Your task to perform on an android device: turn on location history Image 0: 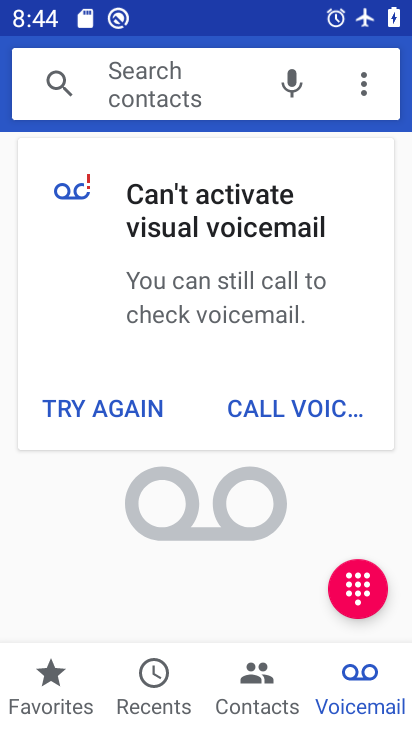
Step 0: press home button
Your task to perform on an android device: turn on location history Image 1: 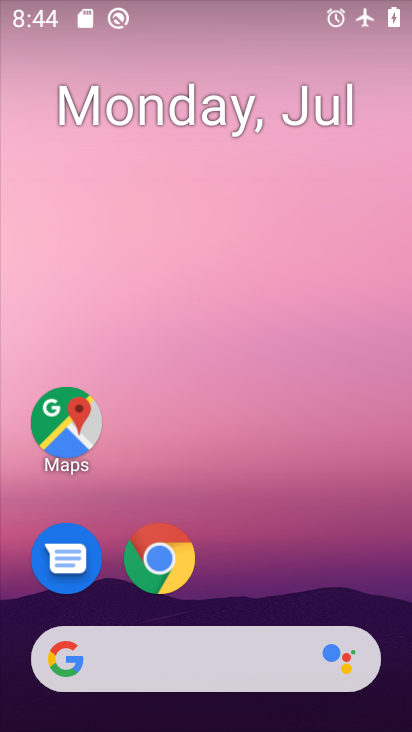
Step 1: drag from (317, 559) to (361, 157)
Your task to perform on an android device: turn on location history Image 2: 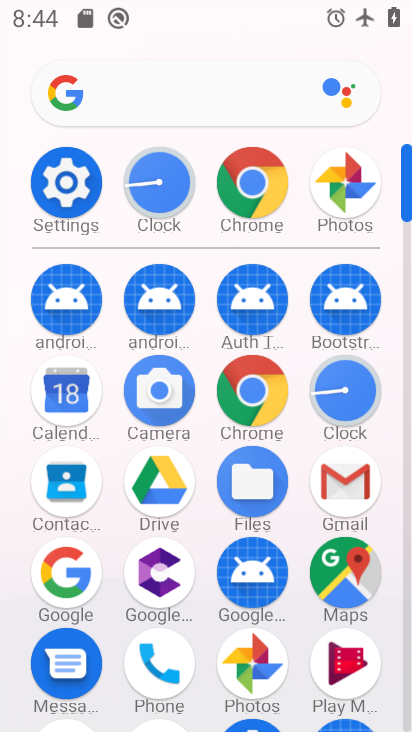
Step 2: click (70, 203)
Your task to perform on an android device: turn on location history Image 3: 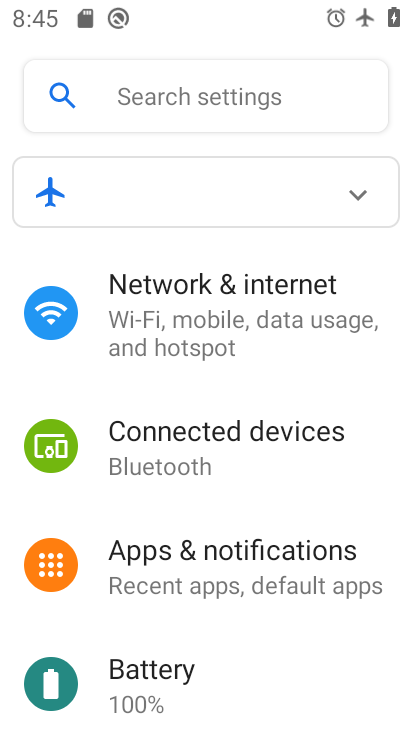
Step 3: drag from (362, 514) to (377, 418)
Your task to perform on an android device: turn on location history Image 4: 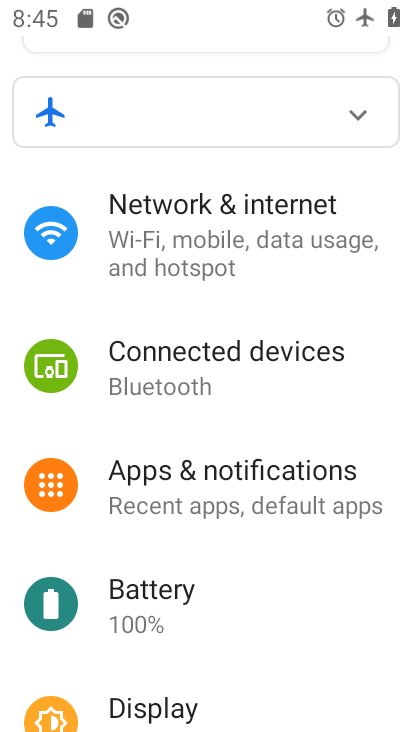
Step 4: drag from (351, 565) to (353, 470)
Your task to perform on an android device: turn on location history Image 5: 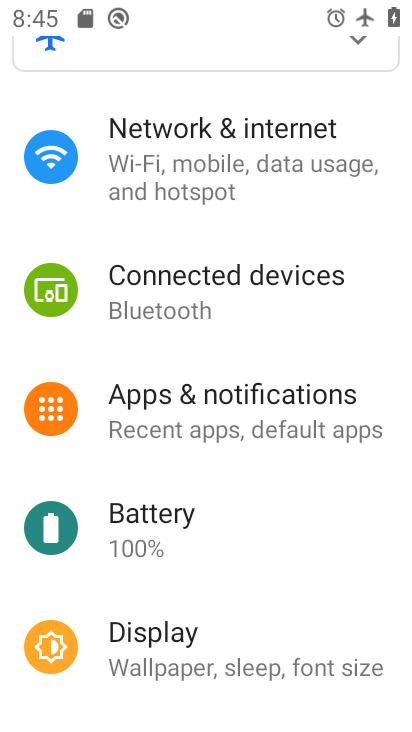
Step 5: drag from (331, 560) to (335, 484)
Your task to perform on an android device: turn on location history Image 6: 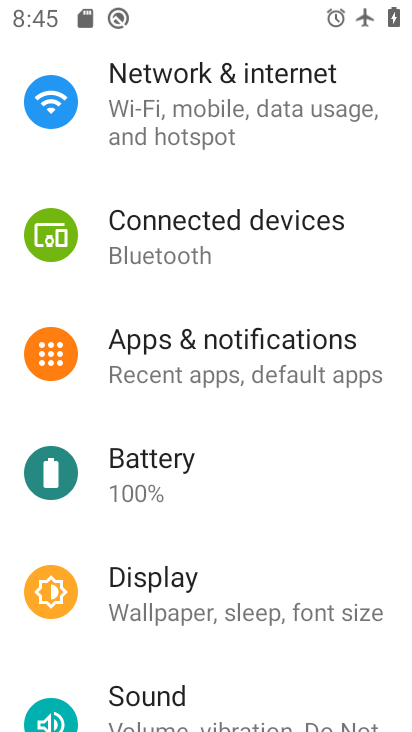
Step 6: drag from (327, 641) to (329, 535)
Your task to perform on an android device: turn on location history Image 7: 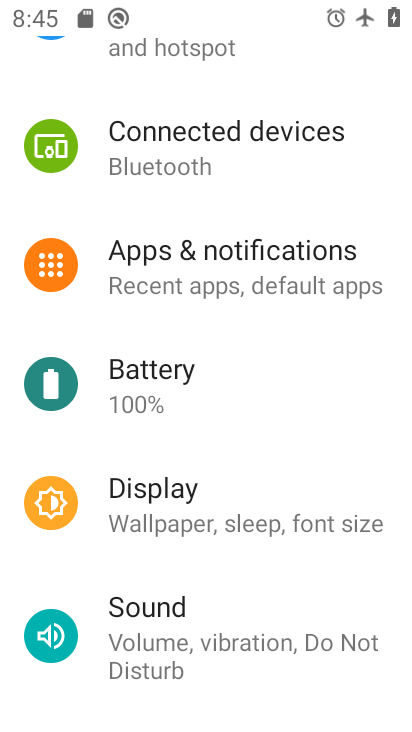
Step 7: drag from (324, 666) to (332, 554)
Your task to perform on an android device: turn on location history Image 8: 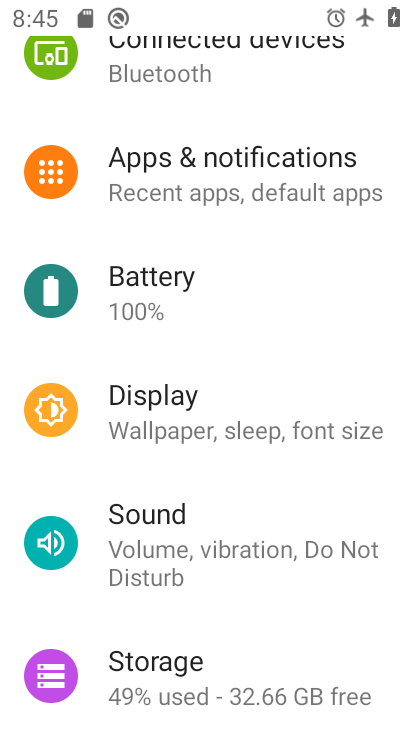
Step 8: drag from (329, 623) to (321, 509)
Your task to perform on an android device: turn on location history Image 9: 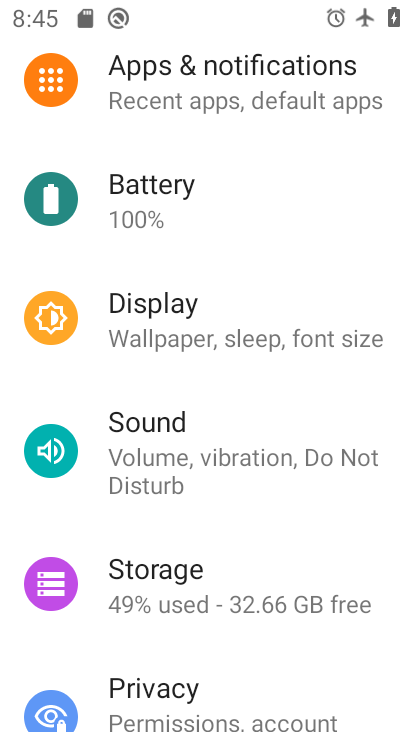
Step 9: drag from (317, 647) to (327, 554)
Your task to perform on an android device: turn on location history Image 10: 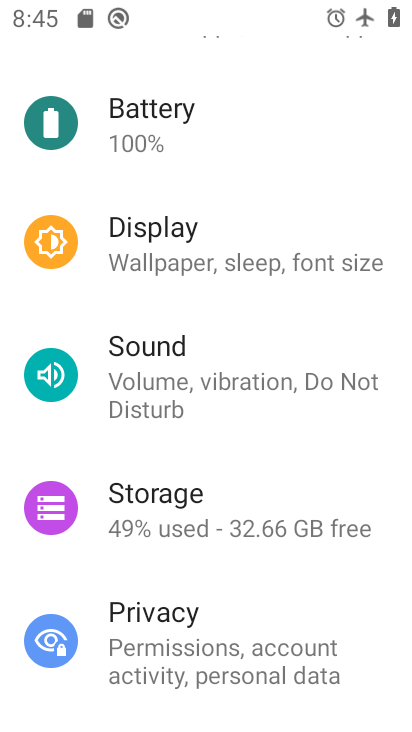
Step 10: drag from (341, 684) to (348, 566)
Your task to perform on an android device: turn on location history Image 11: 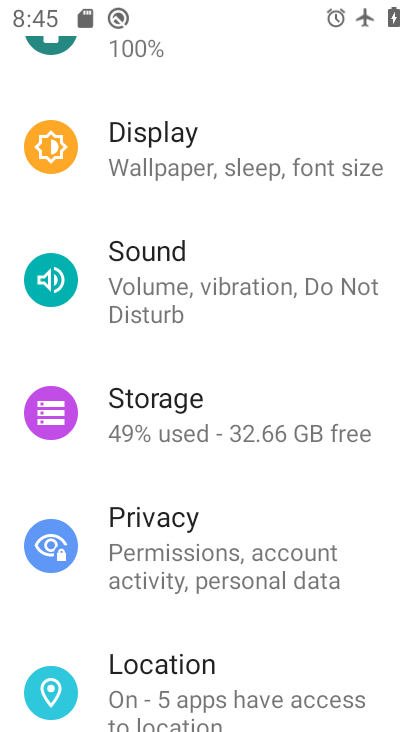
Step 11: drag from (341, 638) to (337, 527)
Your task to perform on an android device: turn on location history Image 12: 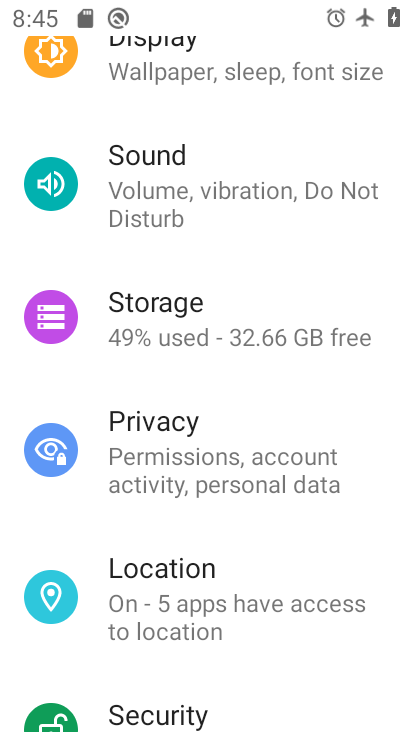
Step 12: click (314, 589)
Your task to perform on an android device: turn on location history Image 13: 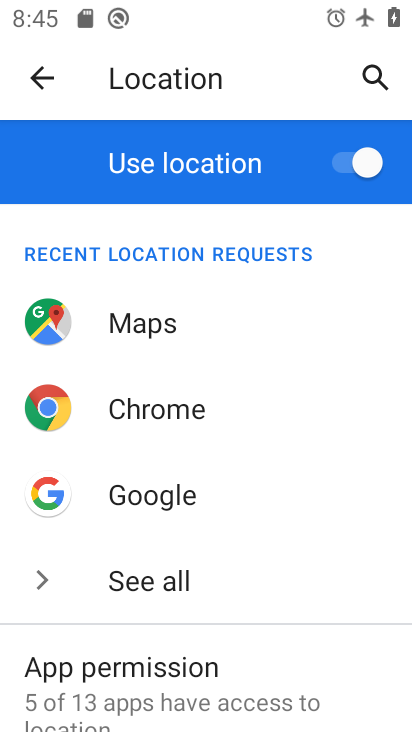
Step 13: drag from (309, 615) to (314, 472)
Your task to perform on an android device: turn on location history Image 14: 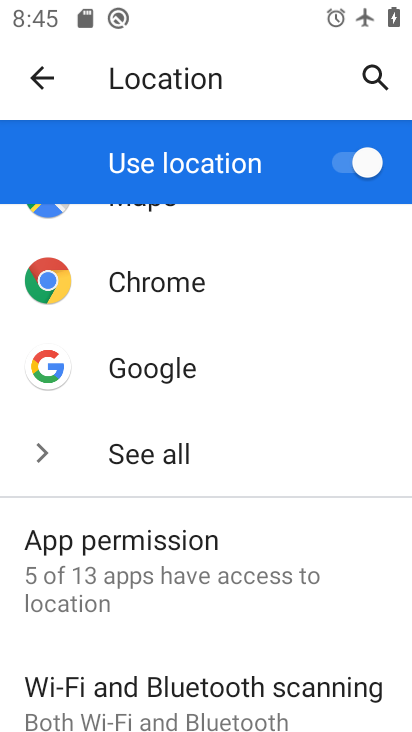
Step 14: drag from (305, 551) to (316, 399)
Your task to perform on an android device: turn on location history Image 15: 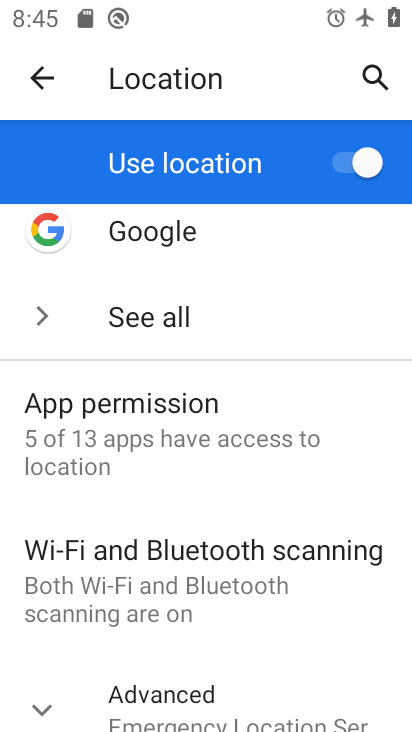
Step 15: drag from (293, 596) to (321, 407)
Your task to perform on an android device: turn on location history Image 16: 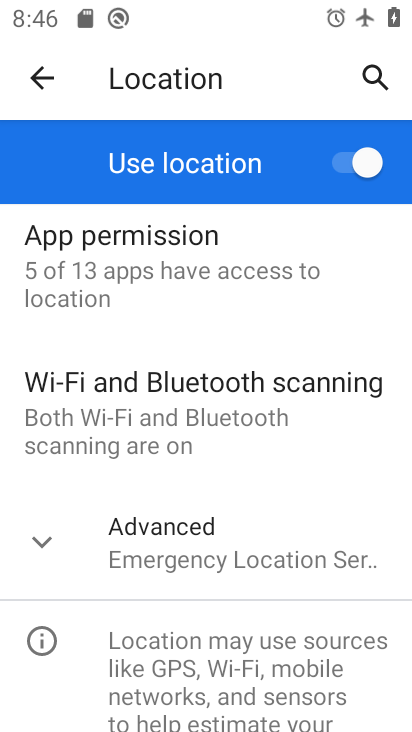
Step 16: click (278, 559)
Your task to perform on an android device: turn on location history Image 17: 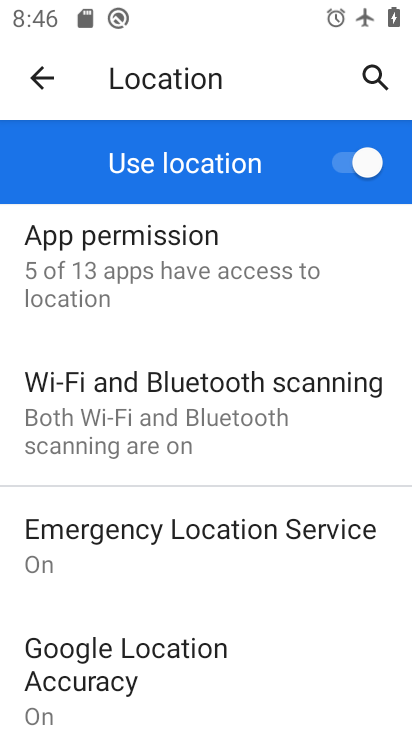
Step 17: drag from (273, 646) to (272, 554)
Your task to perform on an android device: turn on location history Image 18: 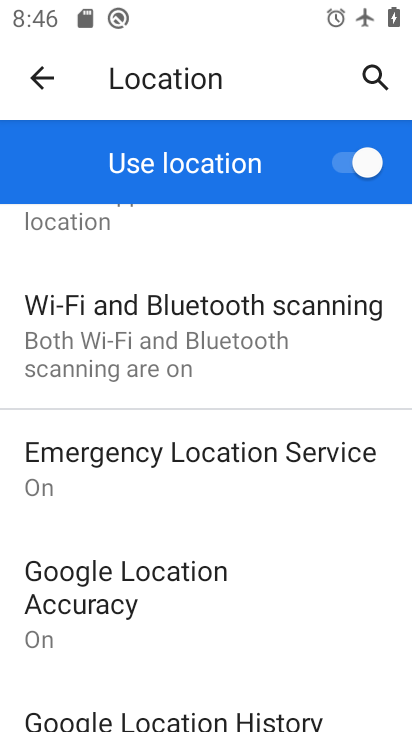
Step 18: drag from (286, 599) to (290, 521)
Your task to perform on an android device: turn on location history Image 19: 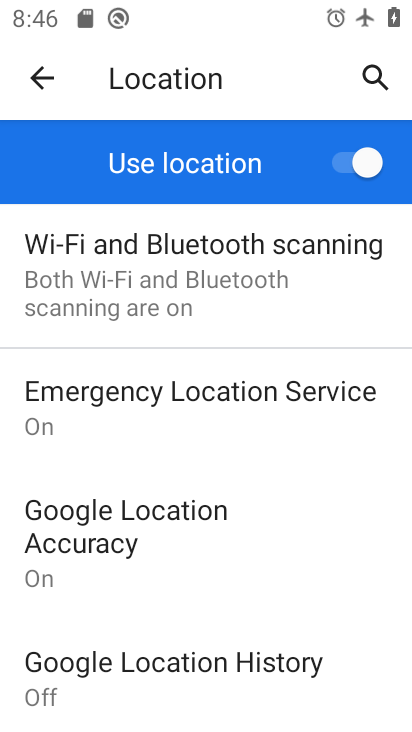
Step 19: drag from (347, 675) to (347, 566)
Your task to perform on an android device: turn on location history Image 20: 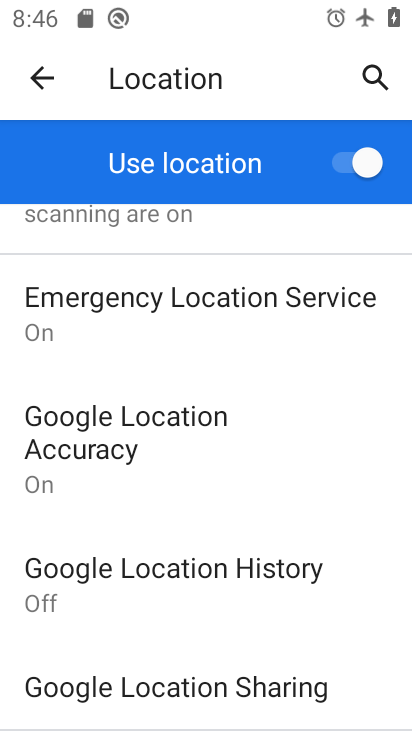
Step 20: drag from (336, 630) to (335, 520)
Your task to perform on an android device: turn on location history Image 21: 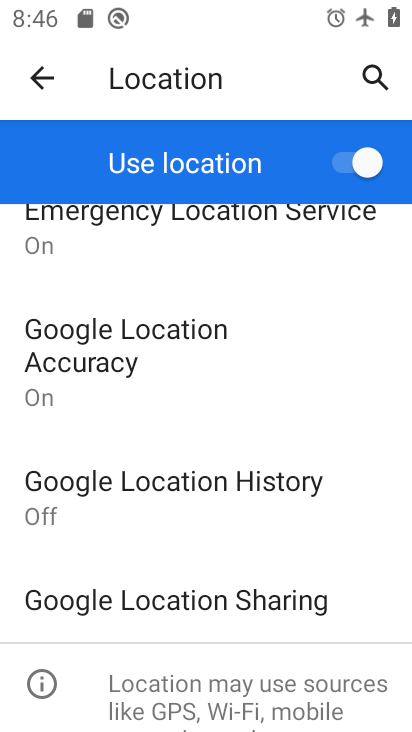
Step 21: click (237, 505)
Your task to perform on an android device: turn on location history Image 22: 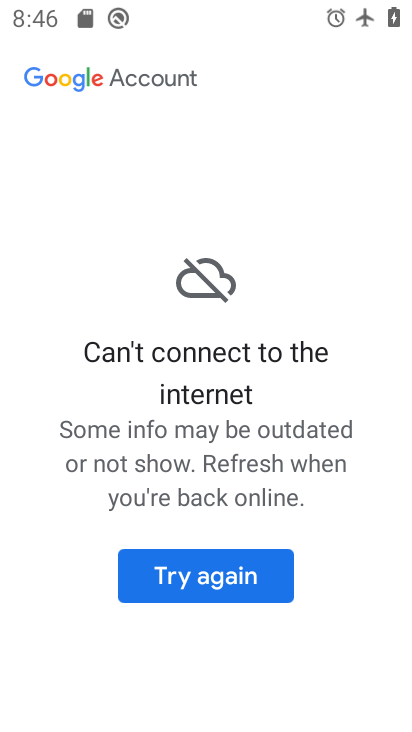
Step 22: task complete